Your task to perform on an android device: search for starred emails in the gmail app Image 0: 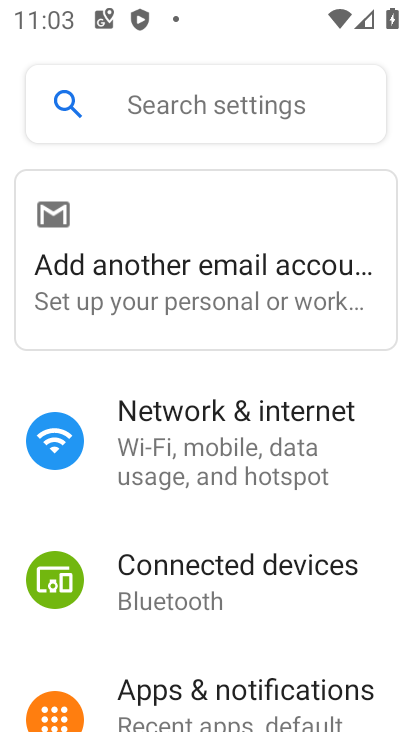
Step 0: press home button
Your task to perform on an android device: search for starred emails in the gmail app Image 1: 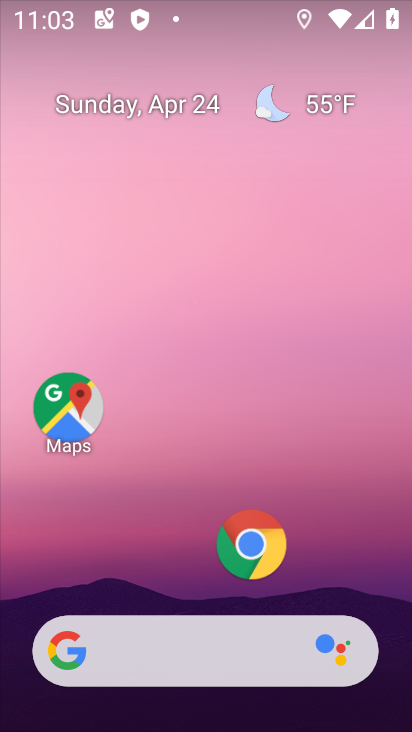
Step 1: drag from (189, 550) to (198, 221)
Your task to perform on an android device: search for starred emails in the gmail app Image 2: 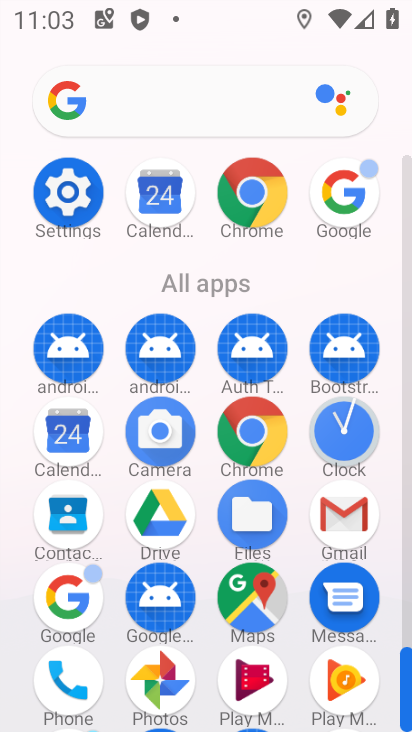
Step 2: click (334, 512)
Your task to perform on an android device: search for starred emails in the gmail app Image 3: 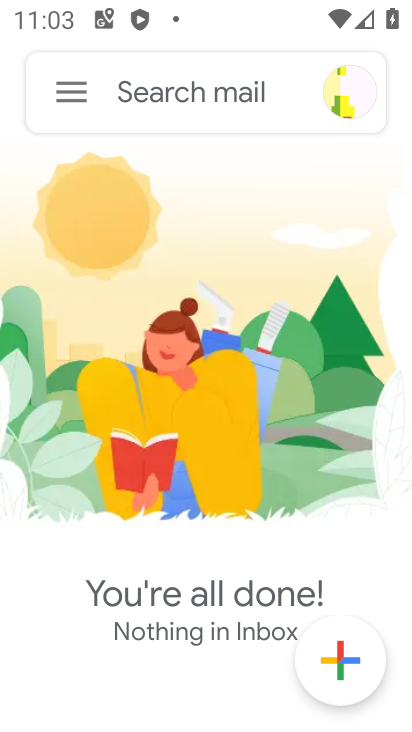
Step 3: click (65, 85)
Your task to perform on an android device: search for starred emails in the gmail app Image 4: 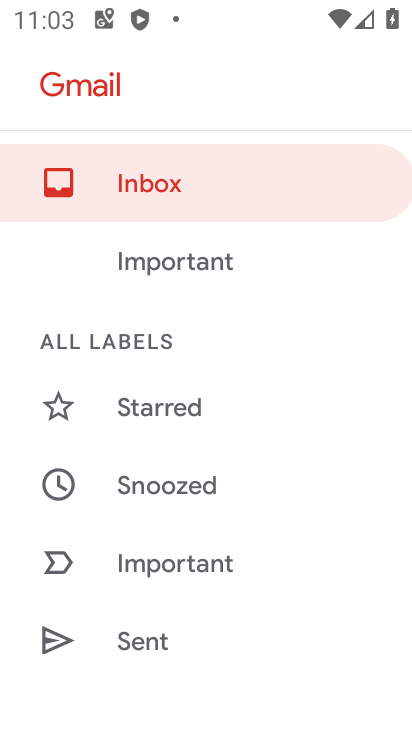
Step 4: click (161, 404)
Your task to perform on an android device: search for starred emails in the gmail app Image 5: 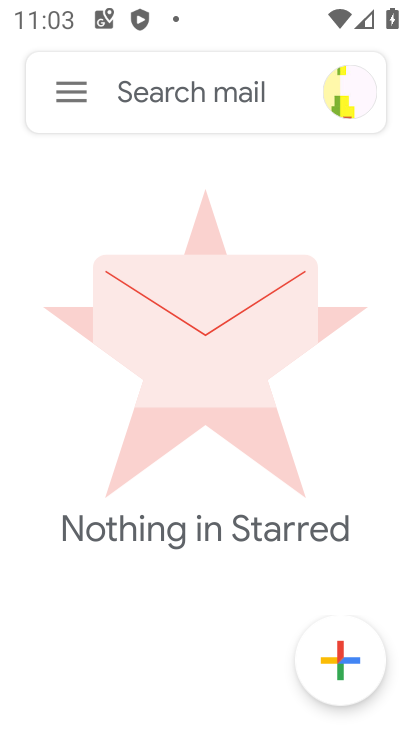
Step 5: task complete